Your task to perform on an android device: refresh tabs in the chrome app Image 0: 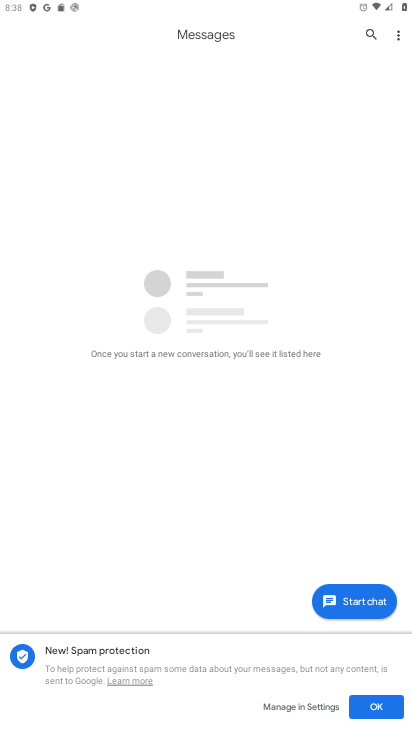
Step 0: press back button
Your task to perform on an android device: refresh tabs in the chrome app Image 1: 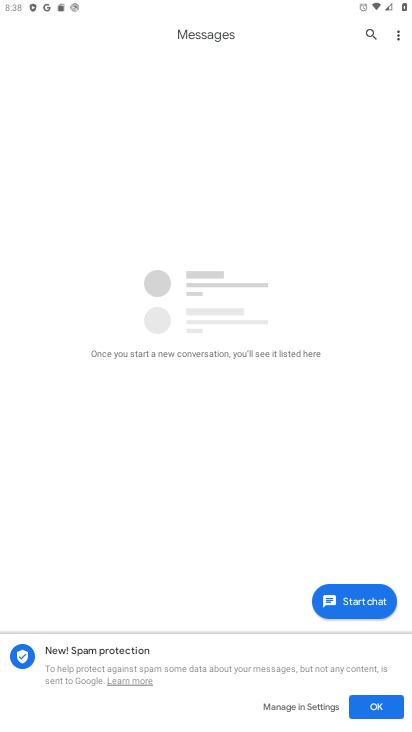
Step 1: press back button
Your task to perform on an android device: refresh tabs in the chrome app Image 2: 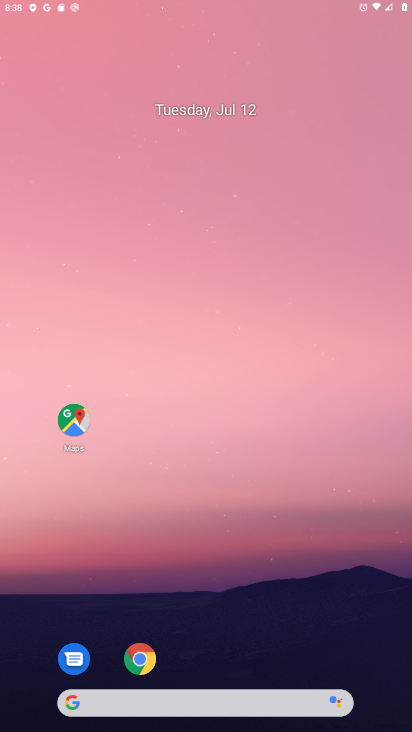
Step 2: press back button
Your task to perform on an android device: refresh tabs in the chrome app Image 3: 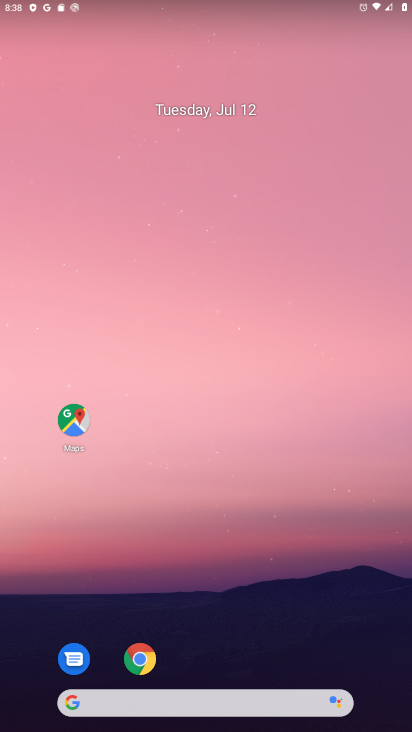
Step 3: drag from (231, 563) to (180, 218)
Your task to perform on an android device: refresh tabs in the chrome app Image 4: 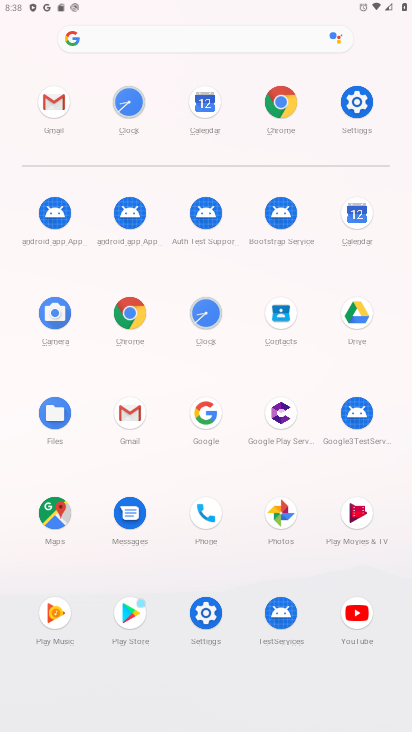
Step 4: click (126, 313)
Your task to perform on an android device: refresh tabs in the chrome app Image 5: 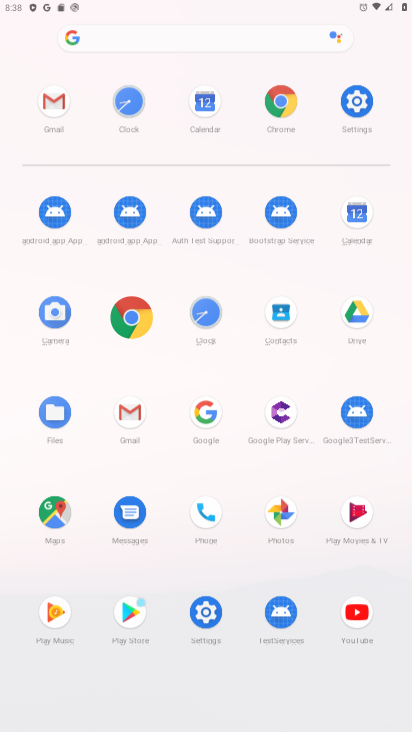
Step 5: click (128, 314)
Your task to perform on an android device: refresh tabs in the chrome app Image 6: 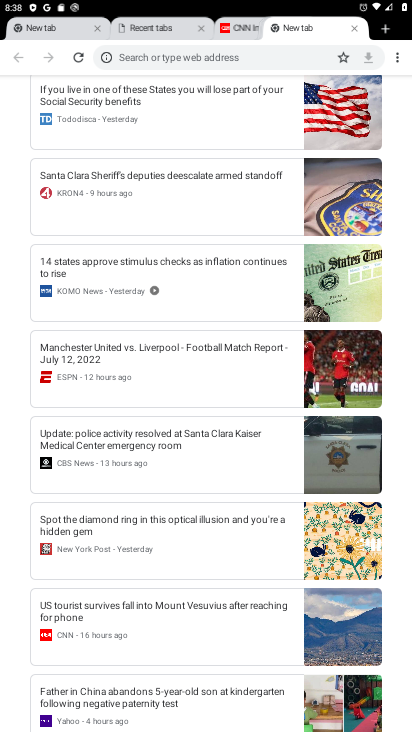
Step 6: press back button
Your task to perform on an android device: refresh tabs in the chrome app Image 7: 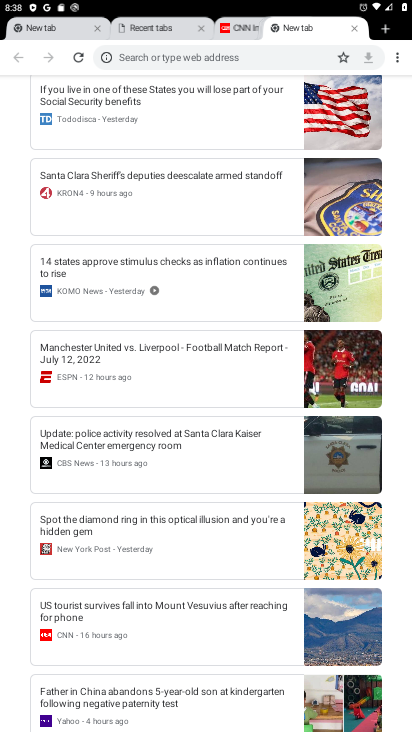
Step 7: press back button
Your task to perform on an android device: refresh tabs in the chrome app Image 8: 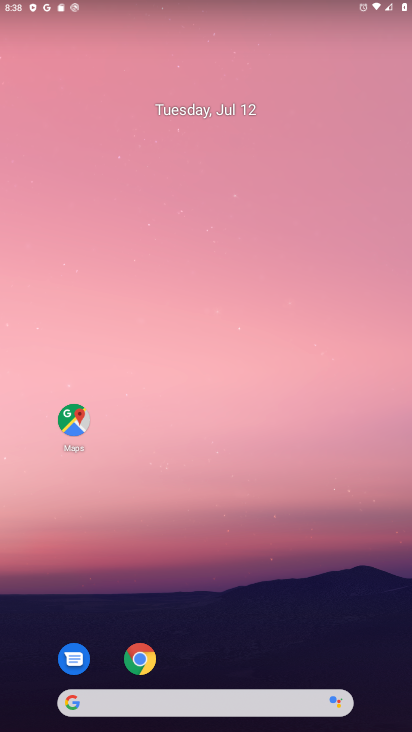
Step 8: drag from (235, 639) to (179, 273)
Your task to perform on an android device: refresh tabs in the chrome app Image 9: 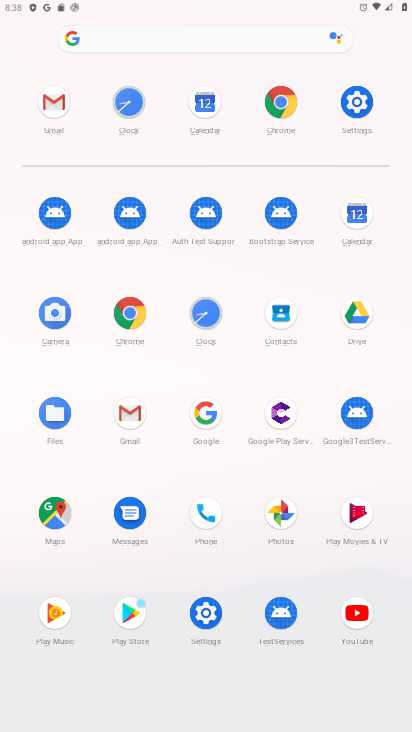
Step 9: click (129, 312)
Your task to perform on an android device: refresh tabs in the chrome app Image 10: 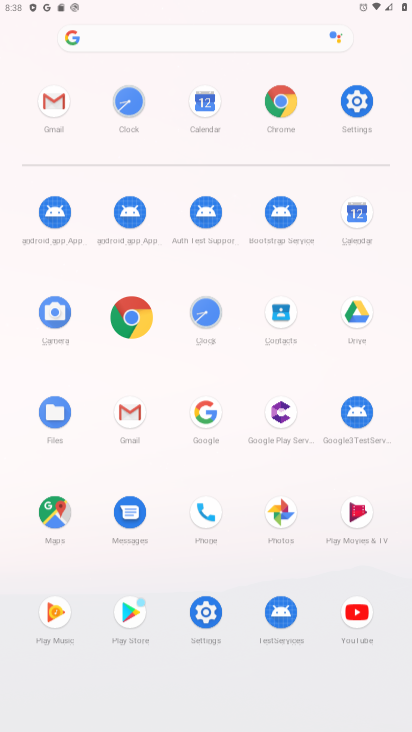
Step 10: click (129, 312)
Your task to perform on an android device: refresh tabs in the chrome app Image 11: 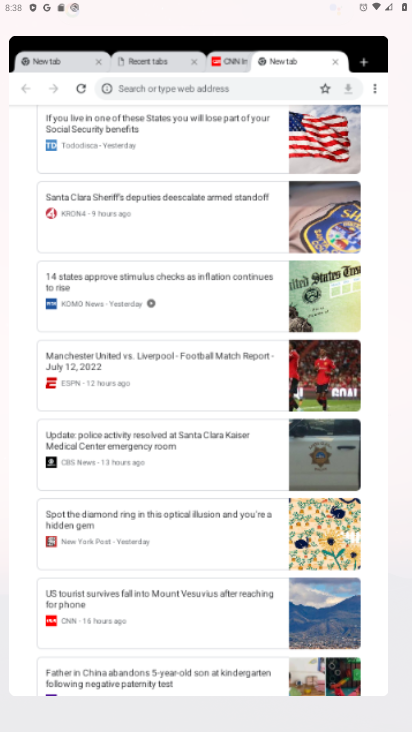
Step 11: click (129, 313)
Your task to perform on an android device: refresh tabs in the chrome app Image 12: 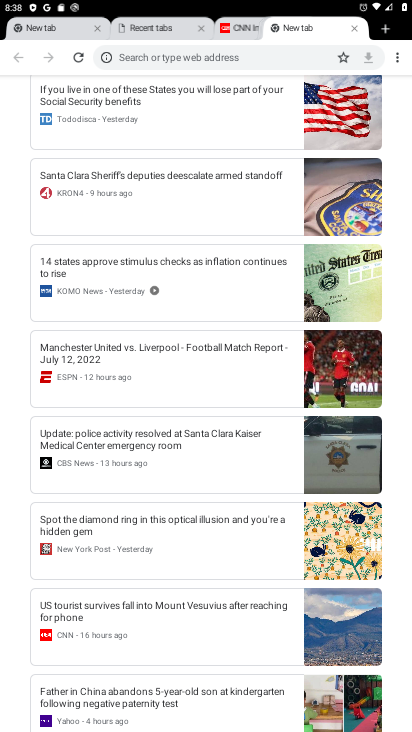
Step 12: drag from (397, 54) to (269, 58)
Your task to perform on an android device: refresh tabs in the chrome app Image 13: 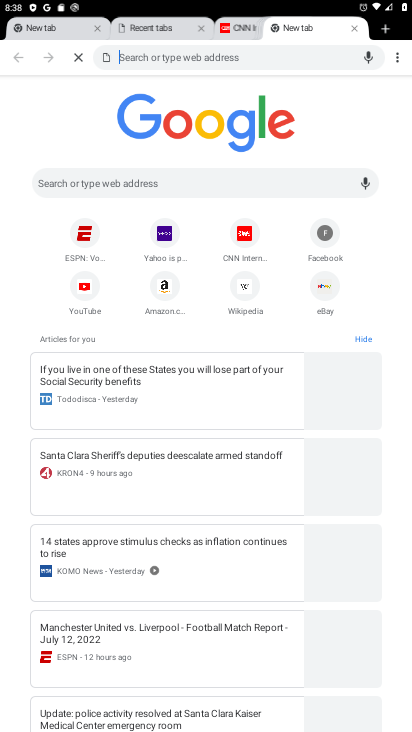
Step 13: click (269, 58)
Your task to perform on an android device: refresh tabs in the chrome app Image 14: 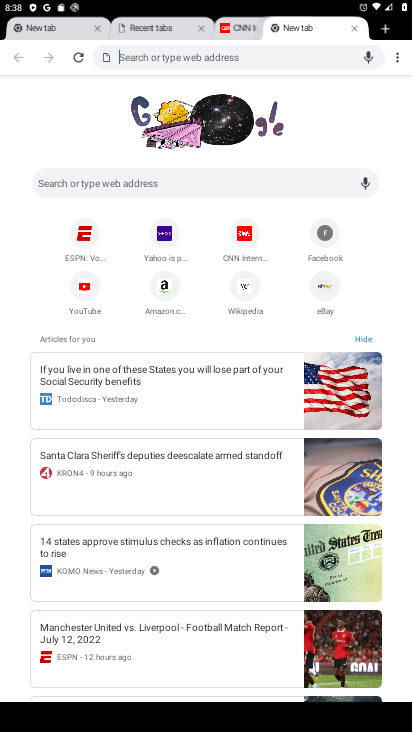
Step 14: click (398, 53)
Your task to perform on an android device: refresh tabs in the chrome app Image 15: 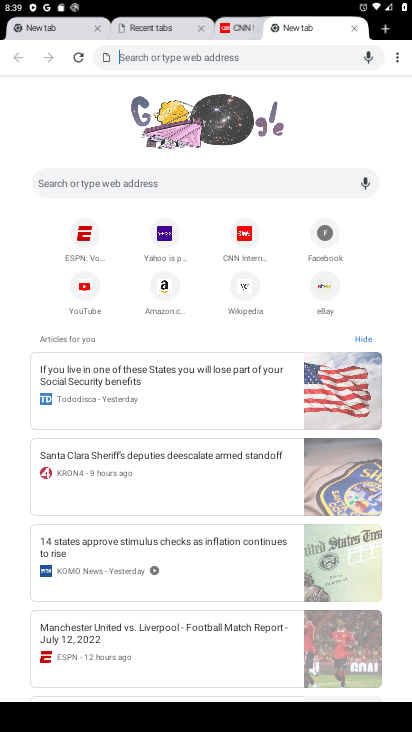
Step 15: click (186, 27)
Your task to perform on an android device: refresh tabs in the chrome app Image 16: 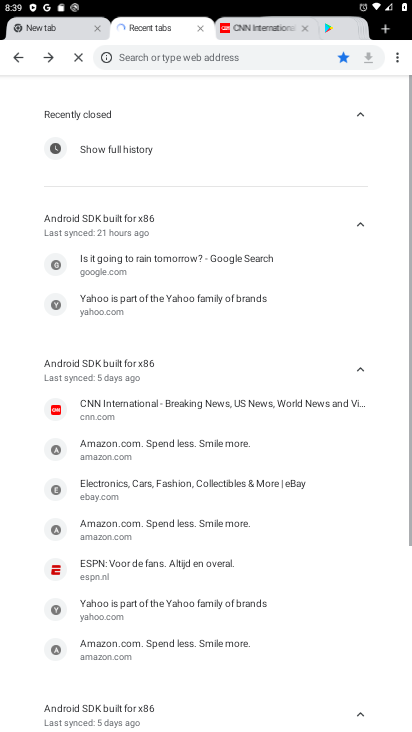
Step 16: drag from (400, 54) to (173, 109)
Your task to perform on an android device: refresh tabs in the chrome app Image 17: 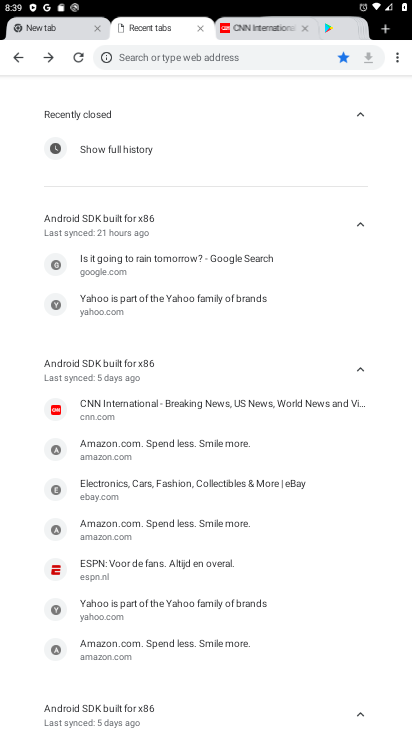
Step 17: click (78, 51)
Your task to perform on an android device: refresh tabs in the chrome app Image 18: 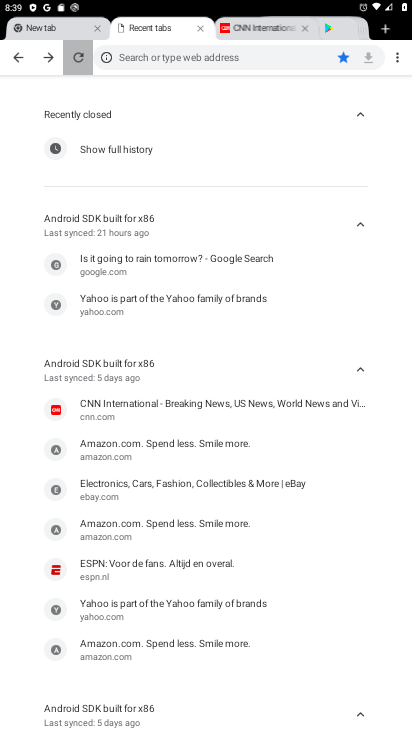
Step 18: click (82, 56)
Your task to perform on an android device: refresh tabs in the chrome app Image 19: 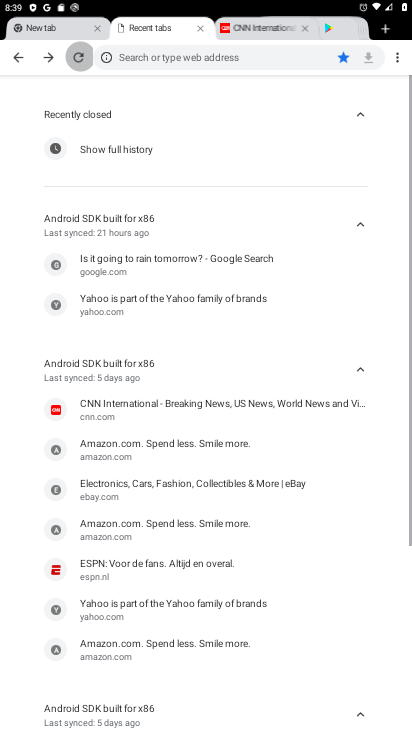
Step 19: click (86, 53)
Your task to perform on an android device: refresh tabs in the chrome app Image 20: 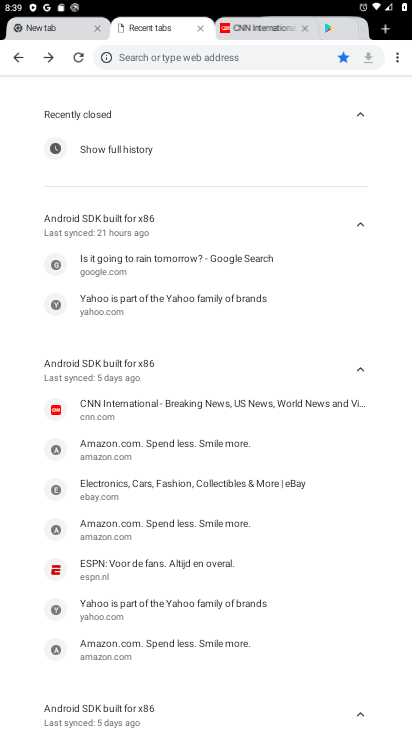
Step 20: task complete